Your task to perform on an android device: Go to Google maps Image 0: 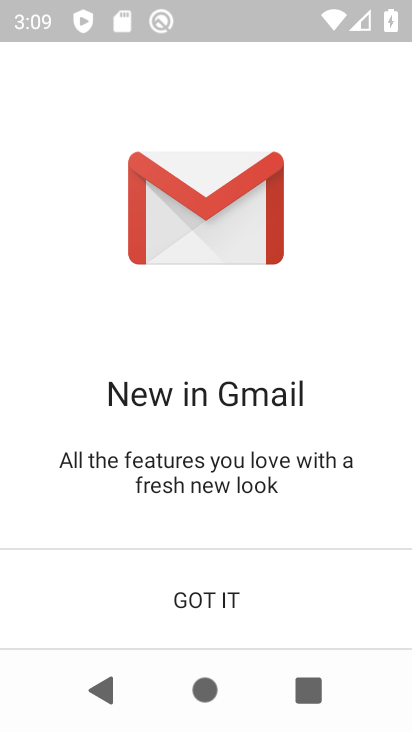
Step 0: press home button
Your task to perform on an android device: Go to Google maps Image 1: 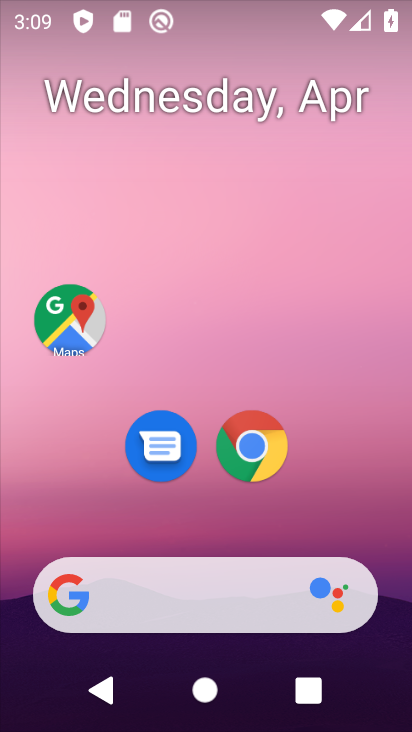
Step 1: click (97, 314)
Your task to perform on an android device: Go to Google maps Image 2: 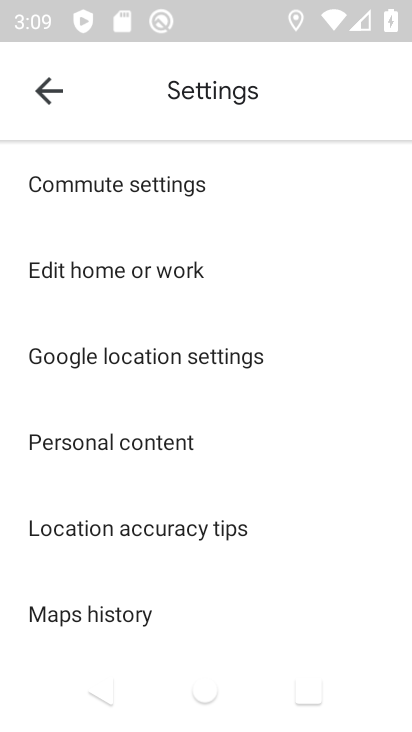
Step 2: click (40, 85)
Your task to perform on an android device: Go to Google maps Image 3: 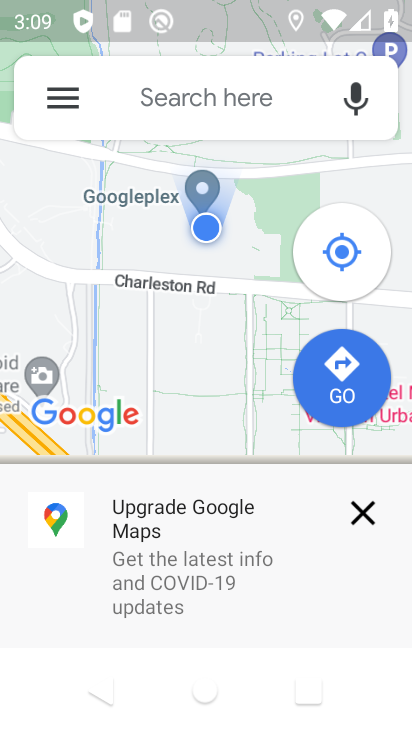
Step 3: task complete